Your task to perform on an android device: Do I have any events tomorrow? Image 0: 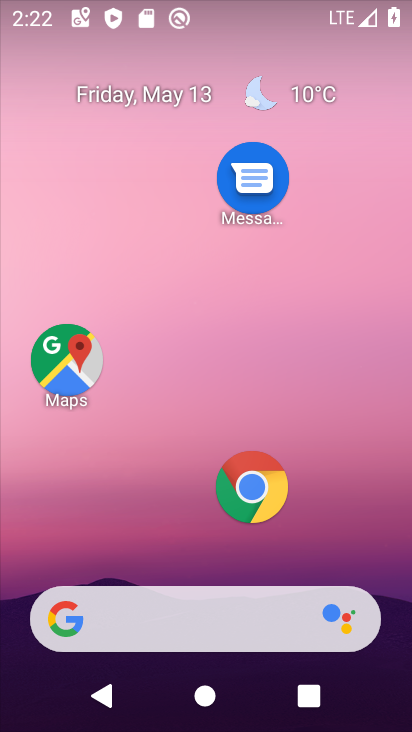
Step 0: drag from (176, 561) to (251, 154)
Your task to perform on an android device: Do I have any events tomorrow? Image 1: 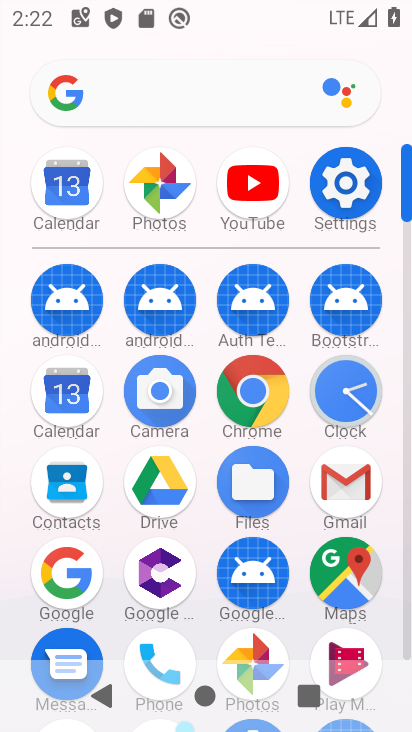
Step 1: click (65, 393)
Your task to perform on an android device: Do I have any events tomorrow? Image 2: 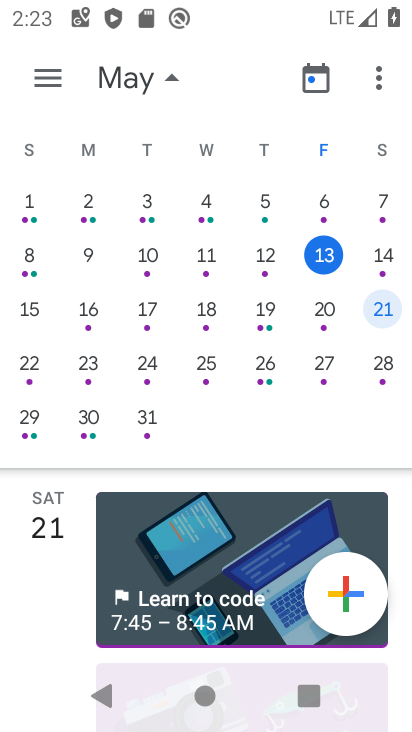
Step 2: click (382, 260)
Your task to perform on an android device: Do I have any events tomorrow? Image 3: 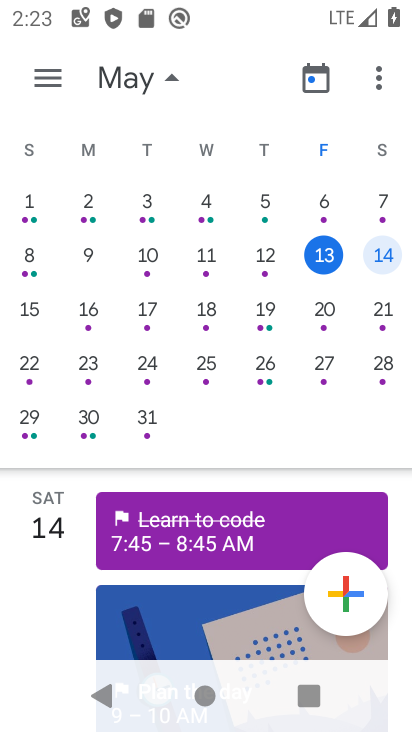
Step 3: task complete